Your task to perform on an android device: Open my contact list Image 0: 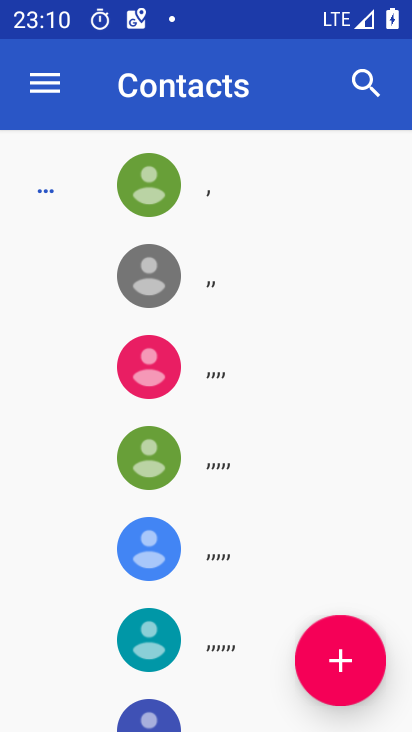
Step 0: press home button
Your task to perform on an android device: Open my contact list Image 1: 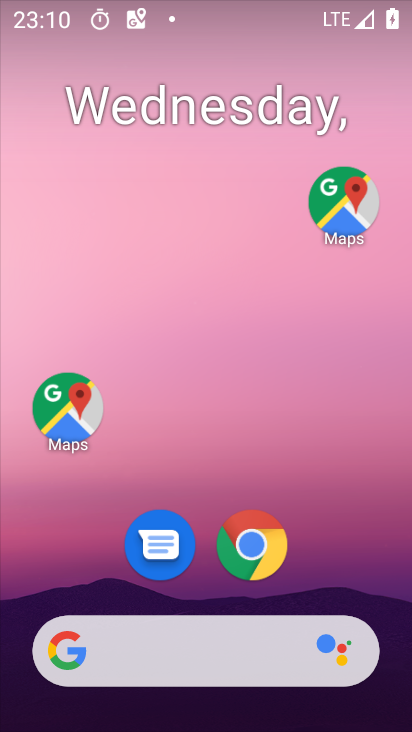
Step 1: drag from (352, 600) to (343, 65)
Your task to perform on an android device: Open my contact list Image 2: 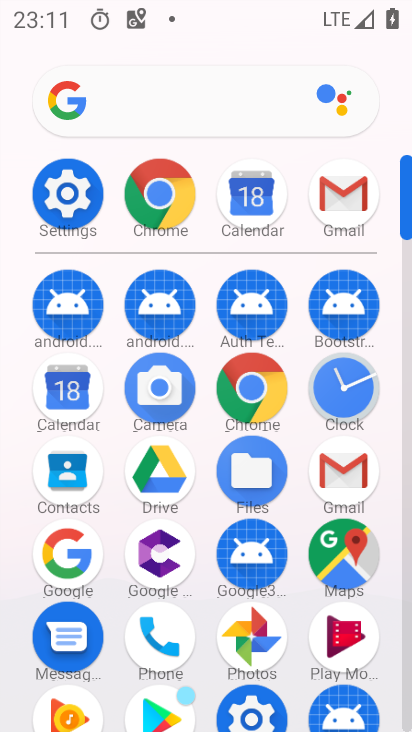
Step 2: click (82, 469)
Your task to perform on an android device: Open my contact list Image 3: 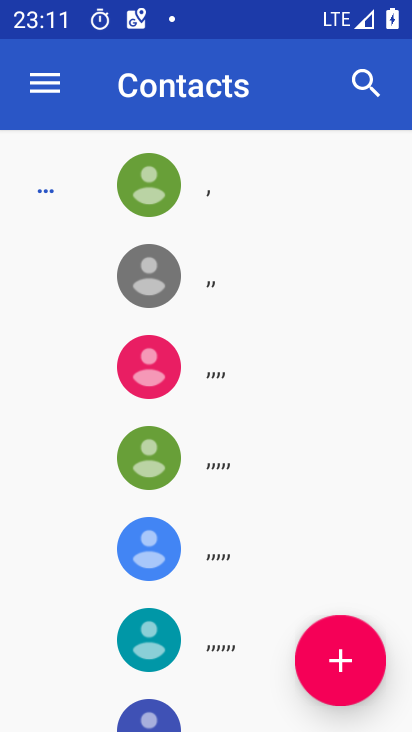
Step 3: task complete